Your task to perform on an android device: visit the assistant section in the google photos Image 0: 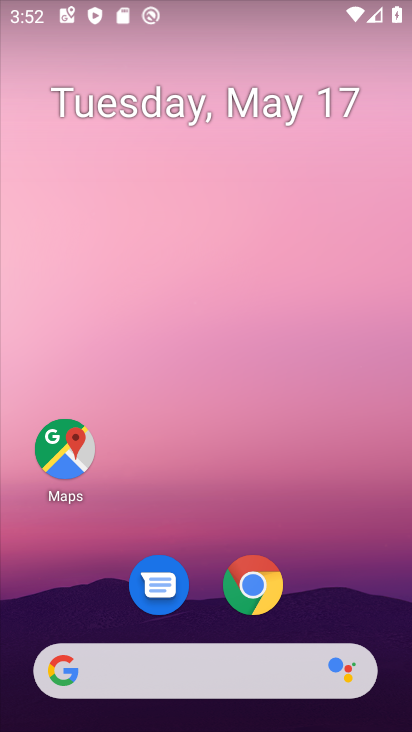
Step 0: drag from (313, 519) to (282, 66)
Your task to perform on an android device: visit the assistant section in the google photos Image 1: 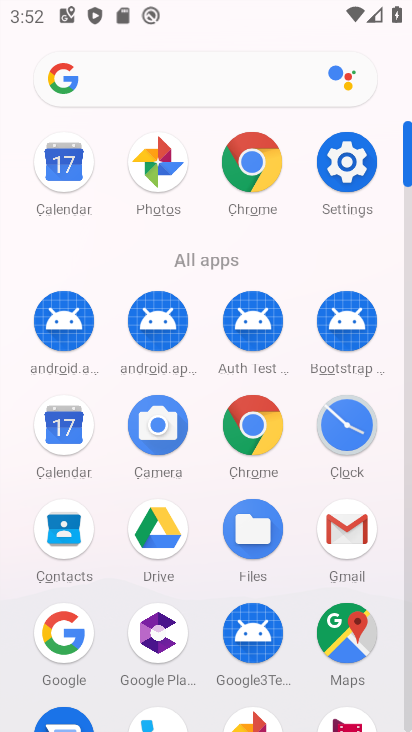
Step 1: click (153, 163)
Your task to perform on an android device: visit the assistant section in the google photos Image 2: 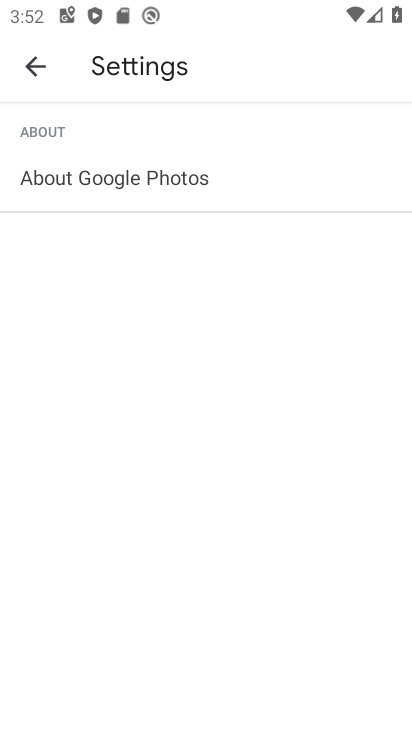
Step 2: click (38, 60)
Your task to perform on an android device: visit the assistant section in the google photos Image 3: 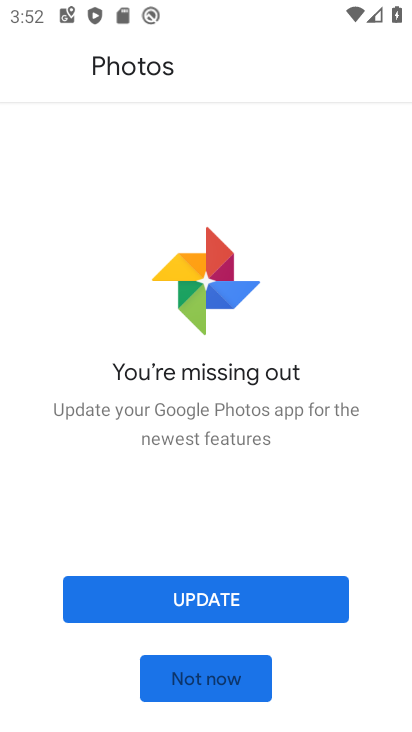
Step 3: click (231, 679)
Your task to perform on an android device: visit the assistant section in the google photos Image 4: 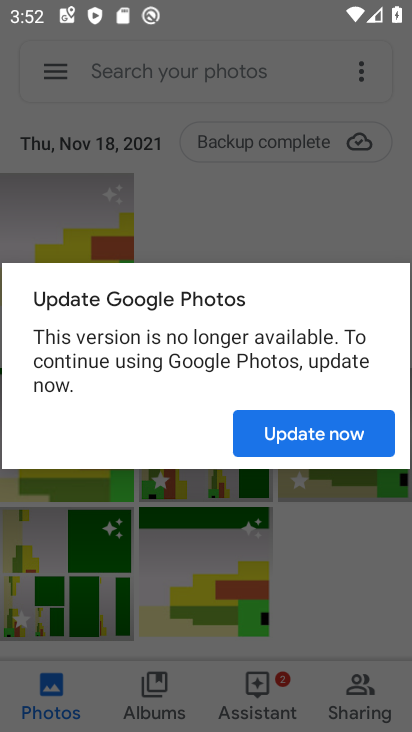
Step 4: click (365, 431)
Your task to perform on an android device: visit the assistant section in the google photos Image 5: 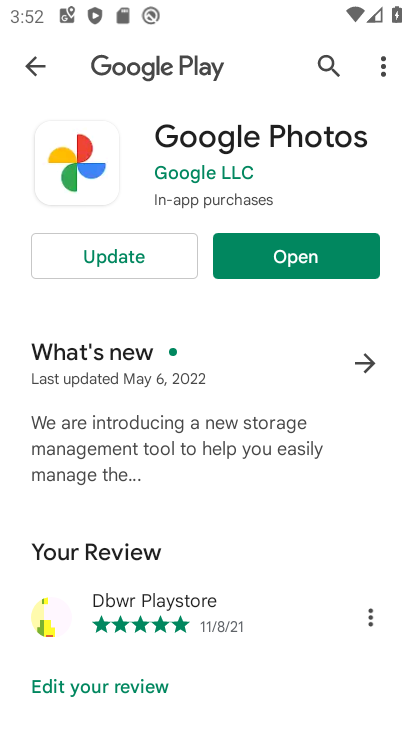
Step 5: click (311, 257)
Your task to perform on an android device: visit the assistant section in the google photos Image 6: 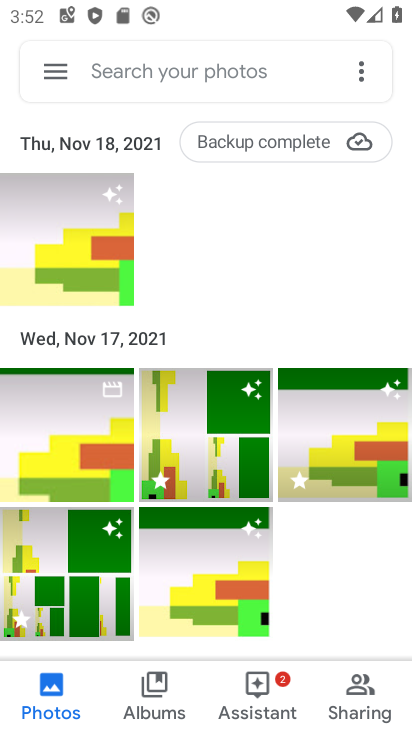
Step 6: click (250, 688)
Your task to perform on an android device: visit the assistant section in the google photos Image 7: 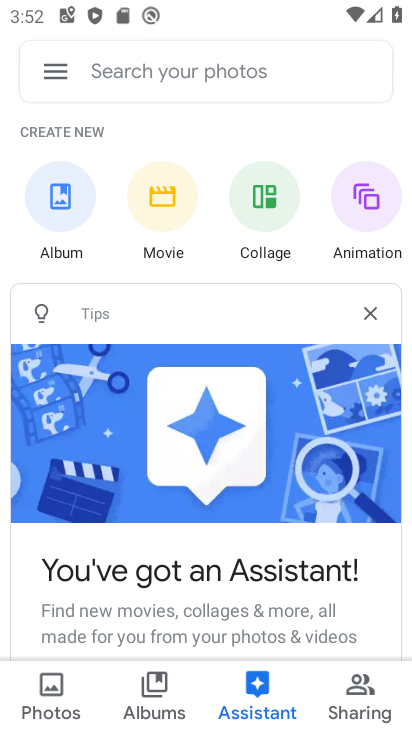
Step 7: task complete